Your task to perform on an android device: When is my next meeting? Image 0: 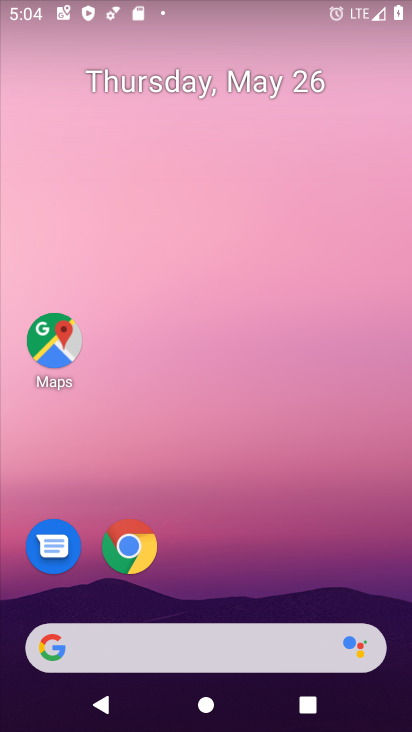
Step 0: click (258, 71)
Your task to perform on an android device: When is my next meeting? Image 1: 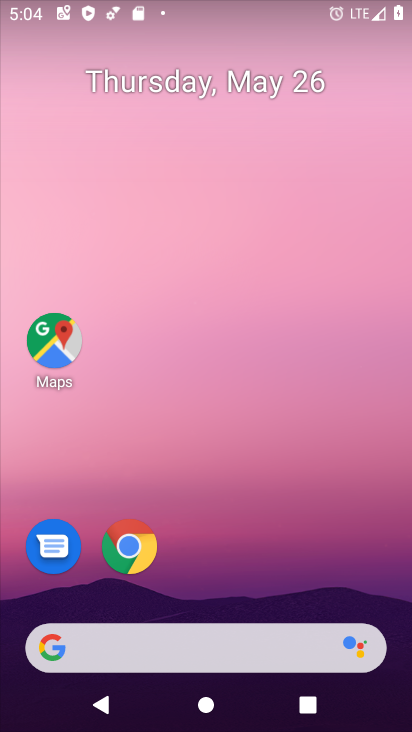
Step 1: drag from (248, 587) to (263, 123)
Your task to perform on an android device: When is my next meeting? Image 2: 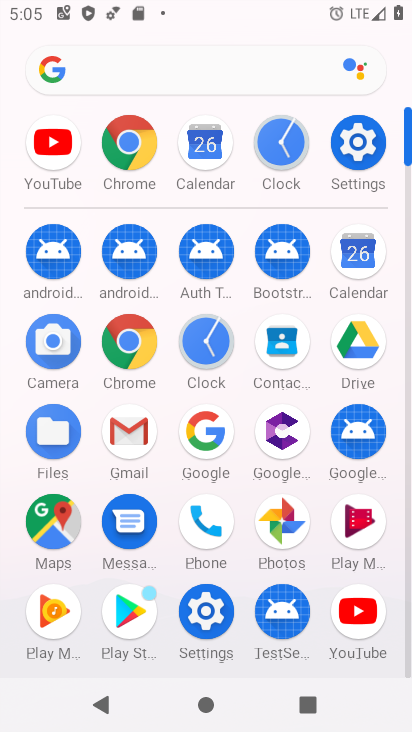
Step 2: click (369, 258)
Your task to perform on an android device: When is my next meeting? Image 3: 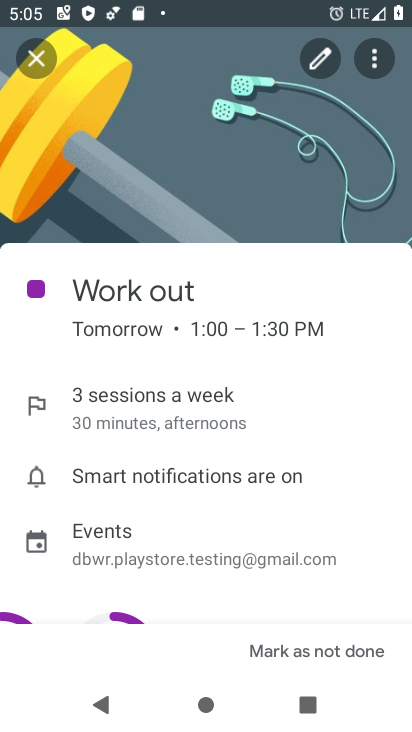
Step 3: task complete